Your task to perform on an android device: Search for vegetarian restaurants on Maps Image 0: 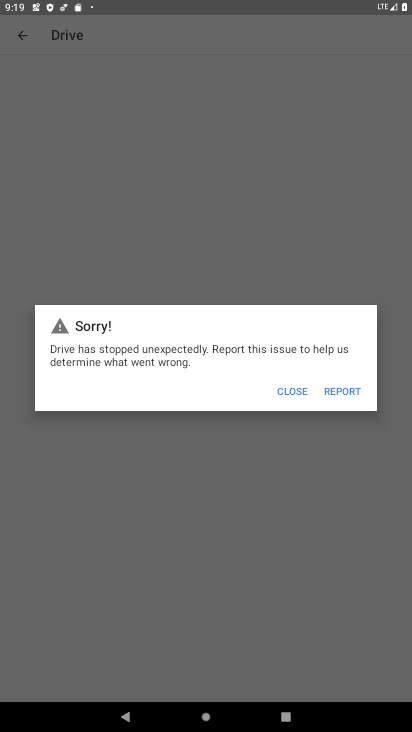
Step 0: press home button
Your task to perform on an android device: Search for vegetarian restaurants on Maps Image 1: 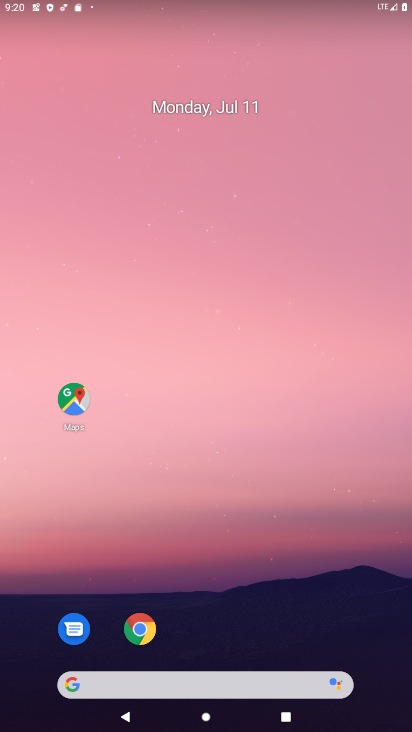
Step 1: click (80, 400)
Your task to perform on an android device: Search for vegetarian restaurants on Maps Image 2: 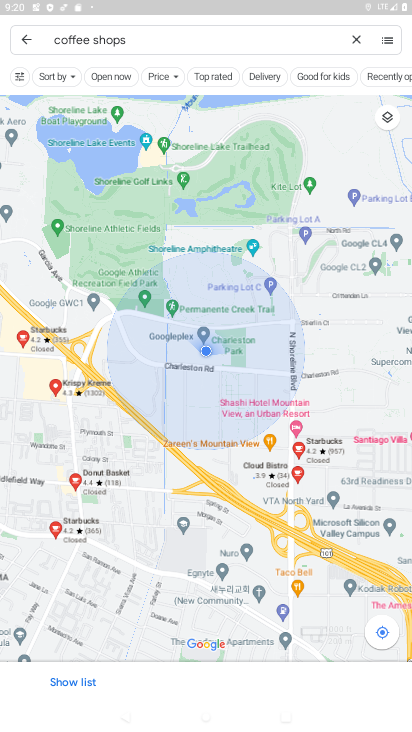
Step 2: click (23, 40)
Your task to perform on an android device: Search for vegetarian restaurants on Maps Image 3: 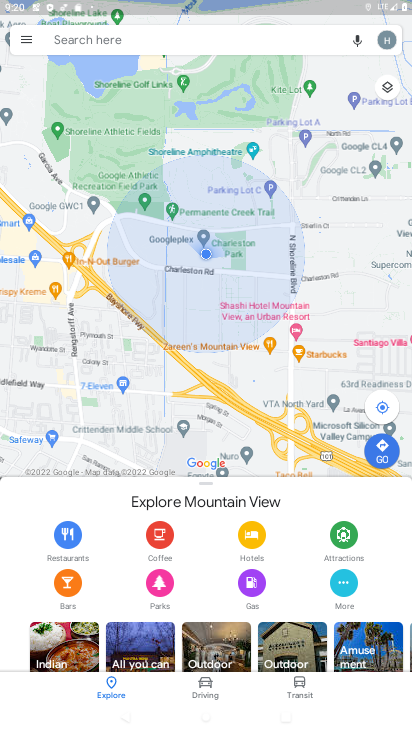
Step 3: click (90, 34)
Your task to perform on an android device: Search for vegetarian restaurants on Maps Image 4: 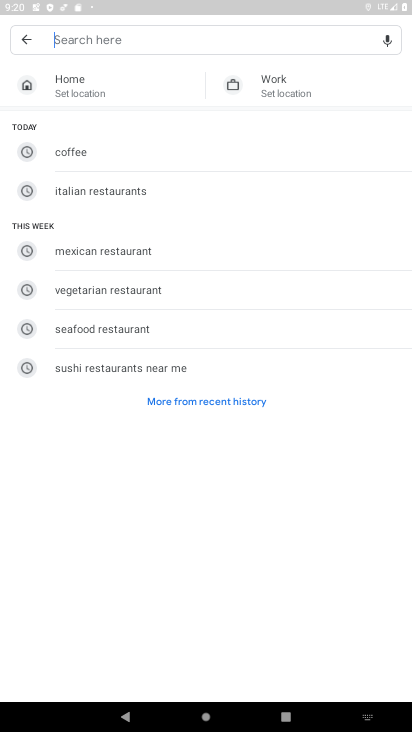
Step 4: type "vegetarian restaurants"
Your task to perform on an android device: Search for vegetarian restaurants on Maps Image 5: 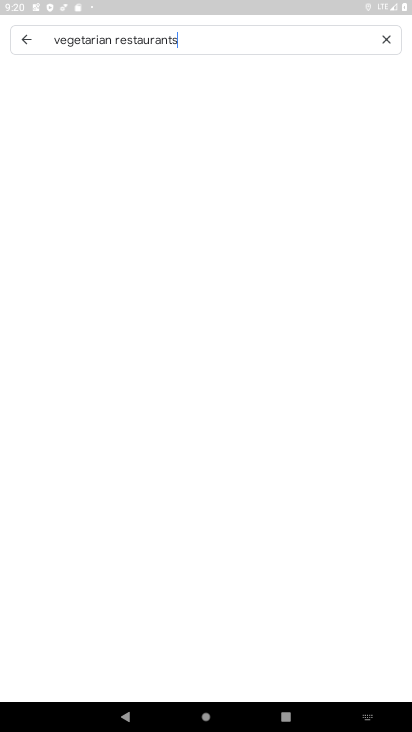
Step 5: type ""
Your task to perform on an android device: Search for vegetarian restaurants on Maps Image 6: 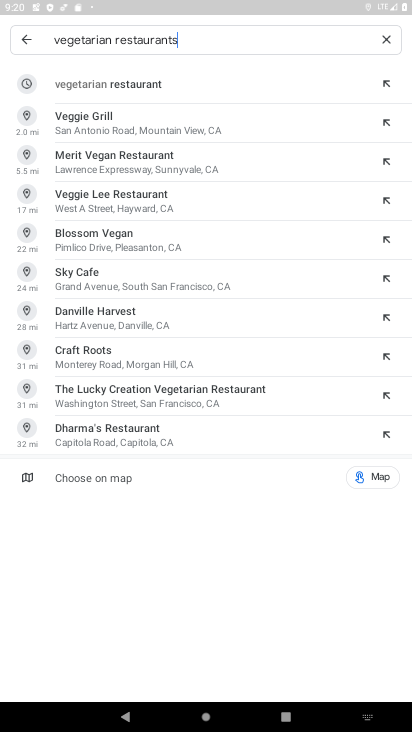
Step 6: click (105, 88)
Your task to perform on an android device: Search for vegetarian restaurants on Maps Image 7: 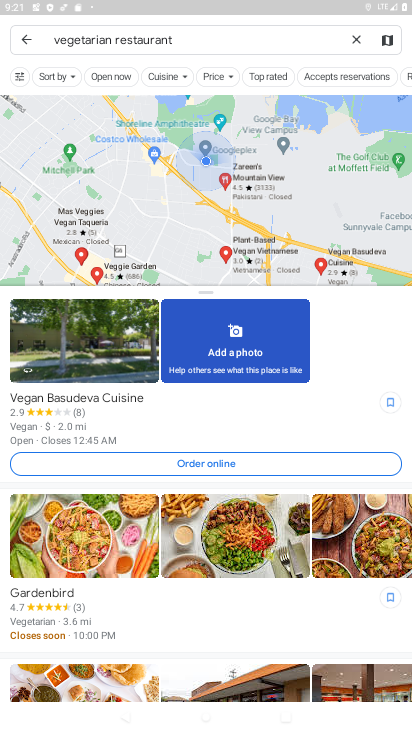
Step 7: task complete